Your task to perform on an android device: toggle notifications settings in the gmail app Image 0: 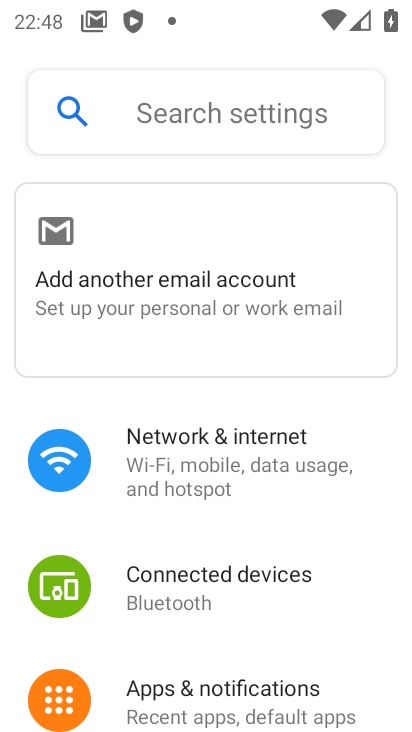
Step 0: press back button
Your task to perform on an android device: toggle notifications settings in the gmail app Image 1: 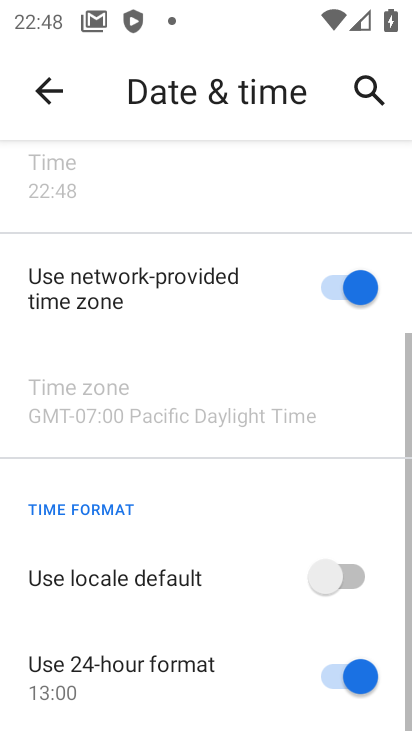
Step 1: press back button
Your task to perform on an android device: toggle notifications settings in the gmail app Image 2: 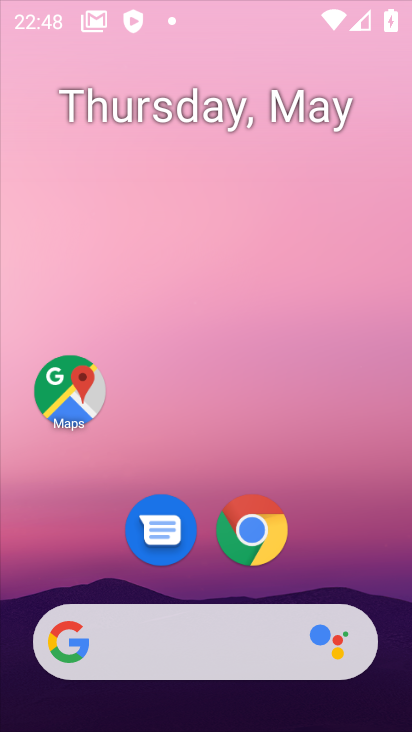
Step 2: press back button
Your task to perform on an android device: toggle notifications settings in the gmail app Image 3: 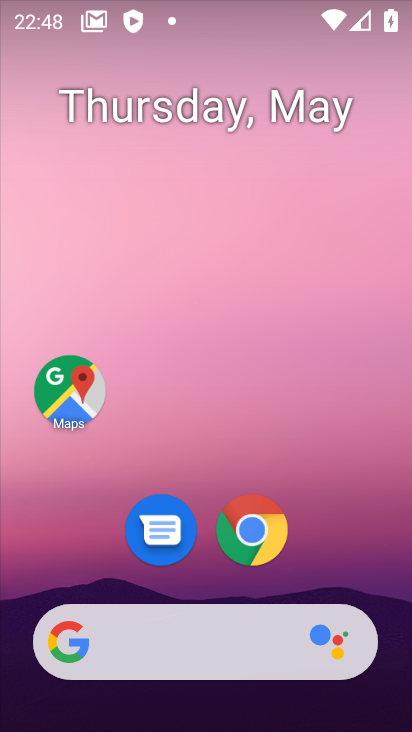
Step 3: drag from (332, 557) to (217, 5)
Your task to perform on an android device: toggle notifications settings in the gmail app Image 4: 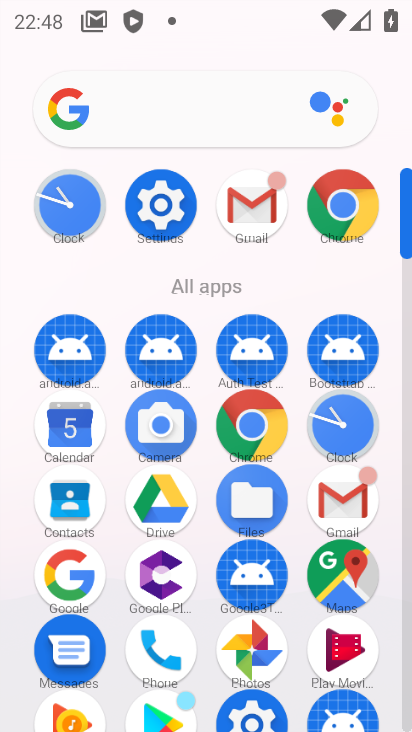
Step 4: click (256, 206)
Your task to perform on an android device: toggle notifications settings in the gmail app Image 5: 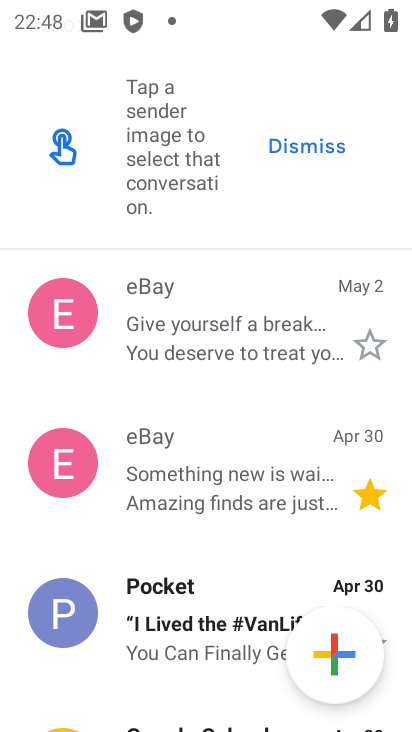
Step 5: drag from (217, 220) to (230, 393)
Your task to perform on an android device: toggle notifications settings in the gmail app Image 6: 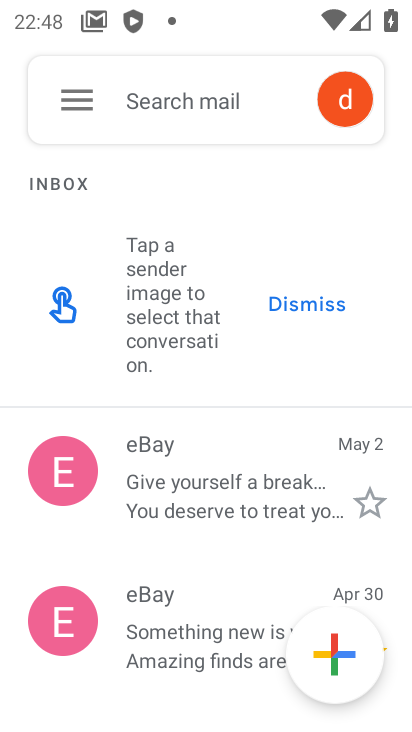
Step 6: click (88, 102)
Your task to perform on an android device: toggle notifications settings in the gmail app Image 7: 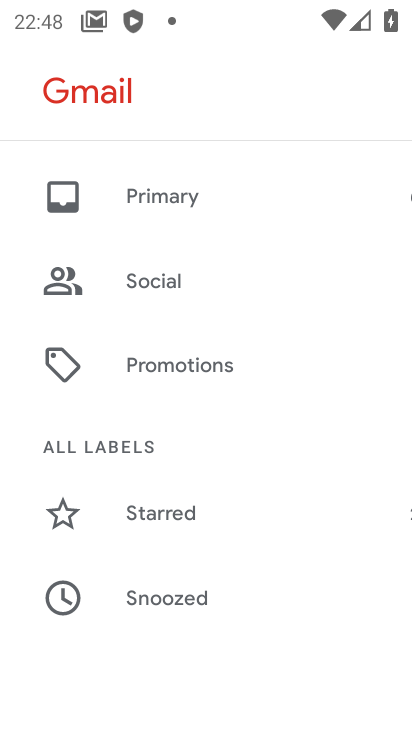
Step 7: drag from (190, 470) to (247, 357)
Your task to perform on an android device: toggle notifications settings in the gmail app Image 8: 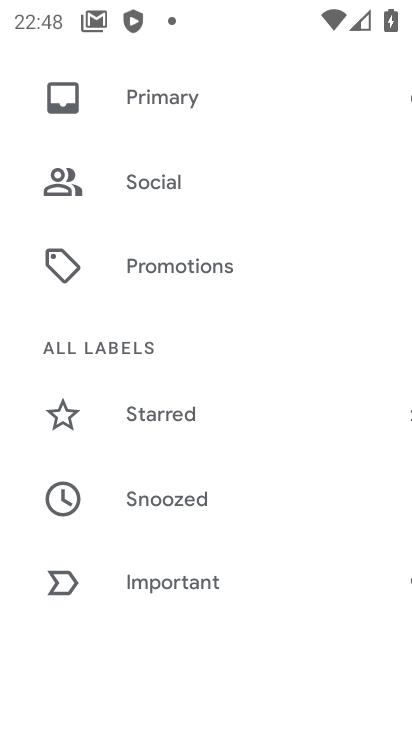
Step 8: drag from (164, 529) to (235, 416)
Your task to perform on an android device: toggle notifications settings in the gmail app Image 9: 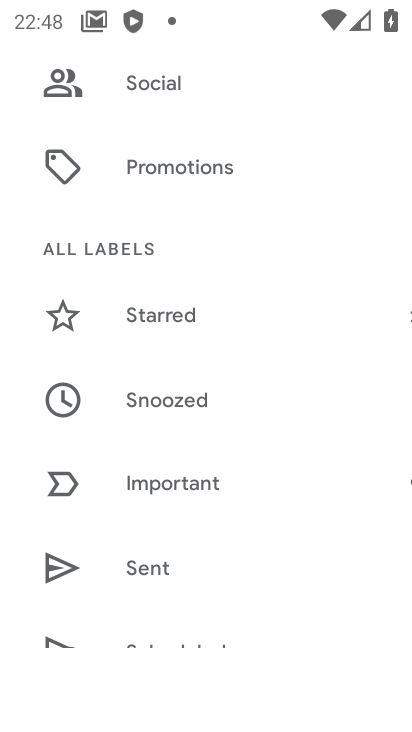
Step 9: drag from (162, 524) to (241, 414)
Your task to perform on an android device: toggle notifications settings in the gmail app Image 10: 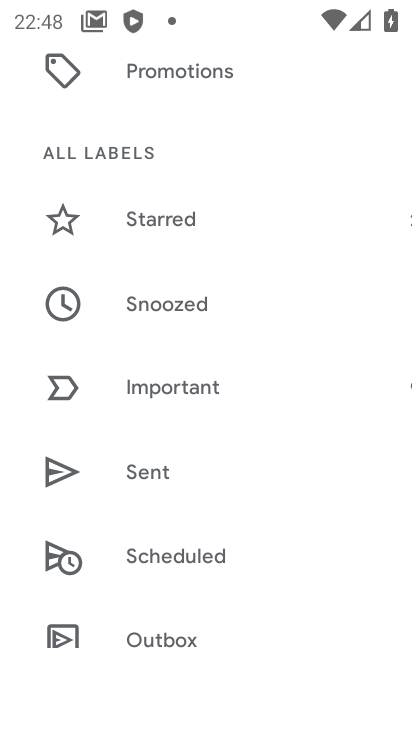
Step 10: drag from (166, 519) to (251, 404)
Your task to perform on an android device: toggle notifications settings in the gmail app Image 11: 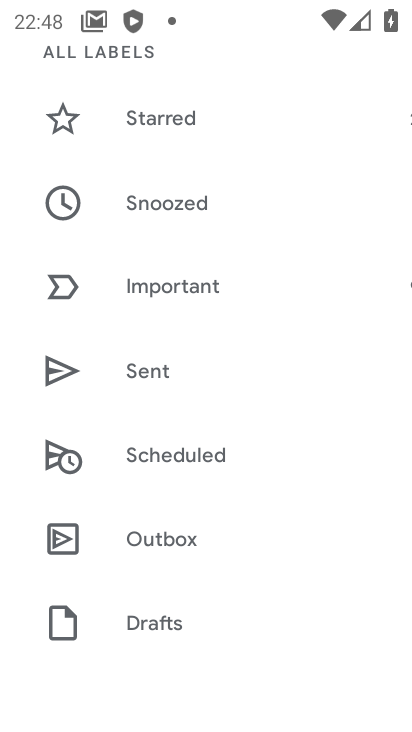
Step 11: drag from (160, 521) to (255, 418)
Your task to perform on an android device: toggle notifications settings in the gmail app Image 12: 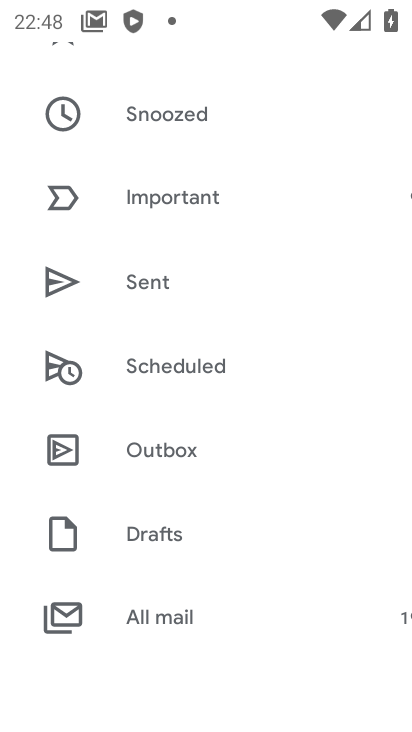
Step 12: drag from (165, 573) to (266, 435)
Your task to perform on an android device: toggle notifications settings in the gmail app Image 13: 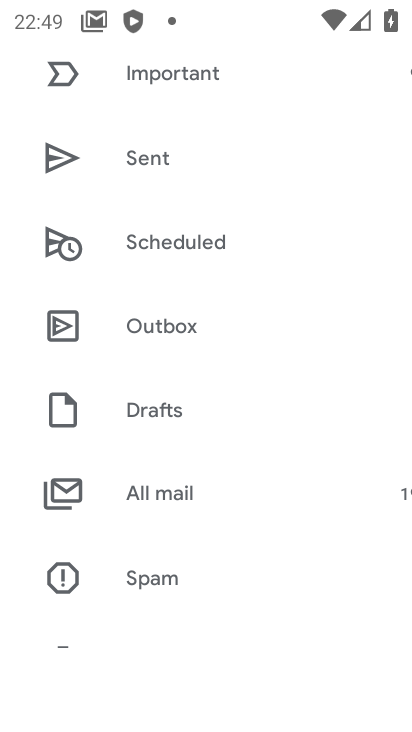
Step 13: drag from (150, 532) to (263, 411)
Your task to perform on an android device: toggle notifications settings in the gmail app Image 14: 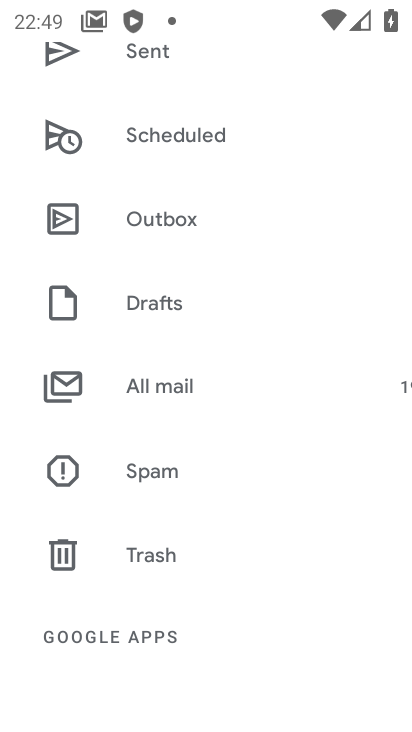
Step 14: drag from (141, 534) to (235, 424)
Your task to perform on an android device: toggle notifications settings in the gmail app Image 15: 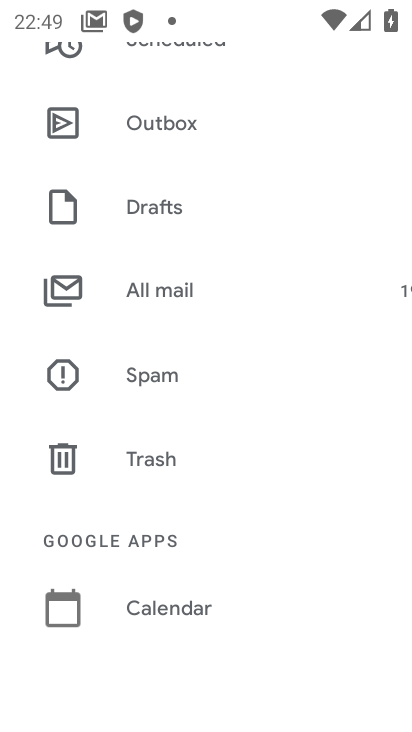
Step 15: drag from (117, 578) to (242, 421)
Your task to perform on an android device: toggle notifications settings in the gmail app Image 16: 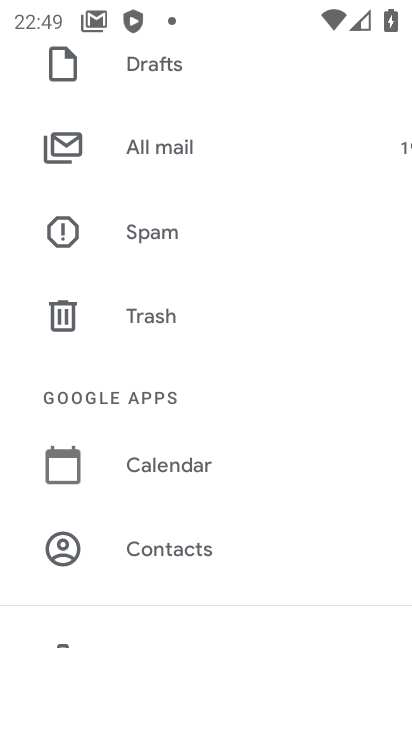
Step 16: drag from (124, 580) to (265, 409)
Your task to perform on an android device: toggle notifications settings in the gmail app Image 17: 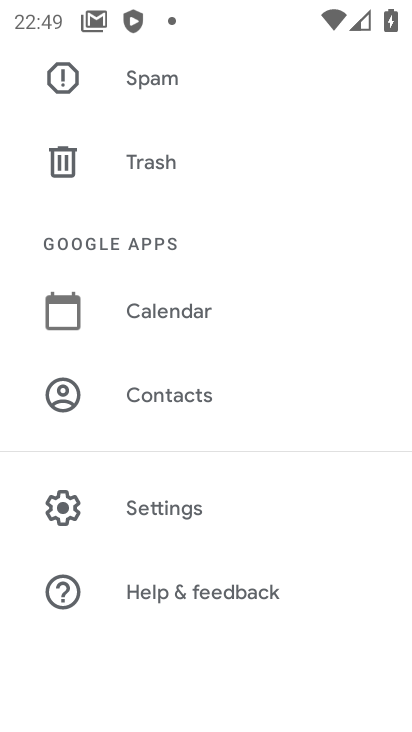
Step 17: click (163, 509)
Your task to perform on an android device: toggle notifications settings in the gmail app Image 18: 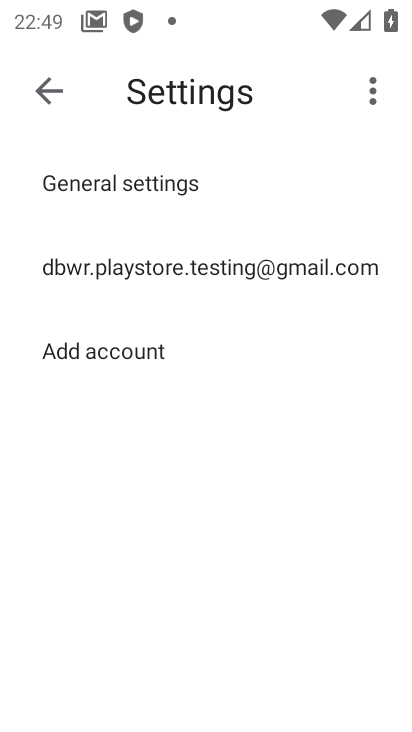
Step 18: click (199, 274)
Your task to perform on an android device: toggle notifications settings in the gmail app Image 19: 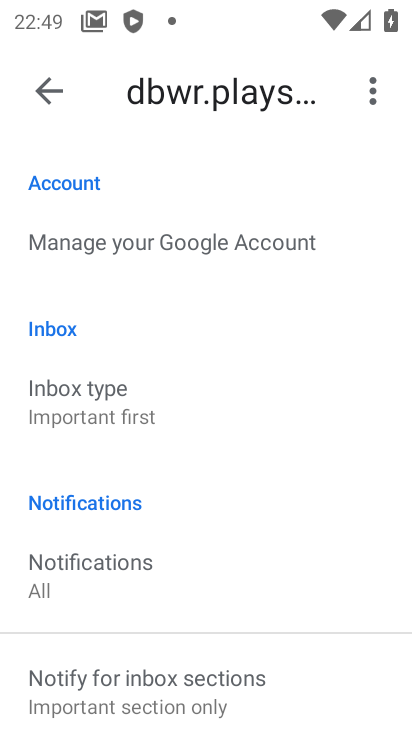
Step 19: drag from (191, 473) to (237, 362)
Your task to perform on an android device: toggle notifications settings in the gmail app Image 20: 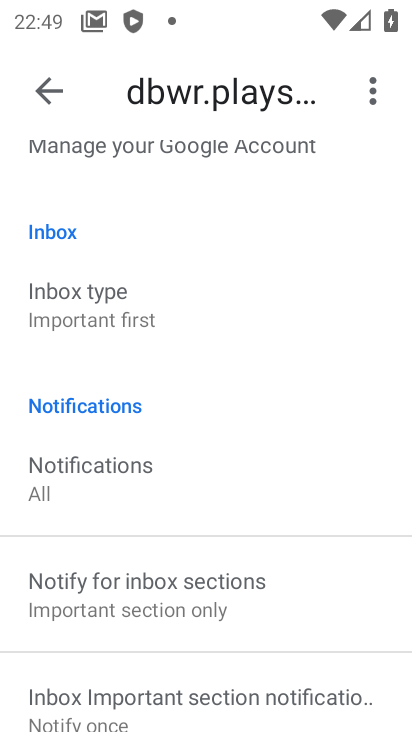
Step 20: drag from (180, 482) to (248, 362)
Your task to perform on an android device: toggle notifications settings in the gmail app Image 21: 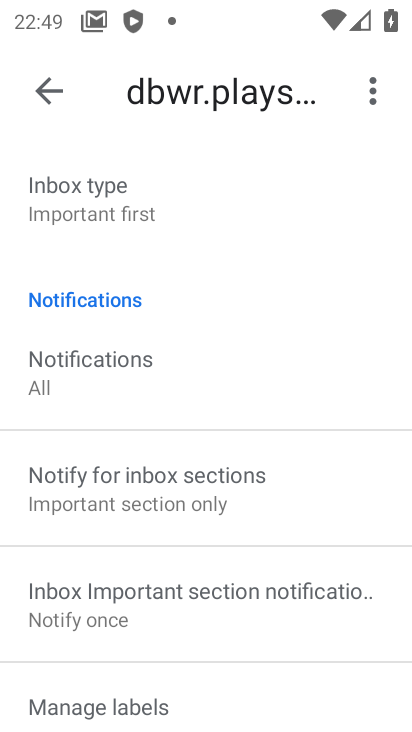
Step 21: drag from (167, 596) to (261, 462)
Your task to perform on an android device: toggle notifications settings in the gmail app Image 22: 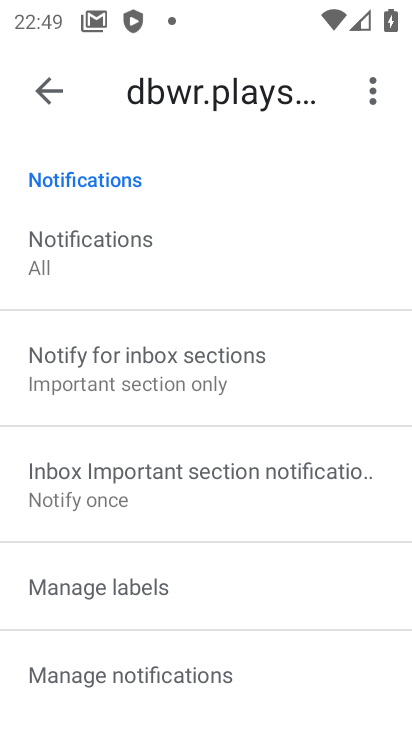
Step 22: drag from (186, 637) to (272, 525)
Your task to perform on an android device: toggle notifications settings in the gmail app Image 23: 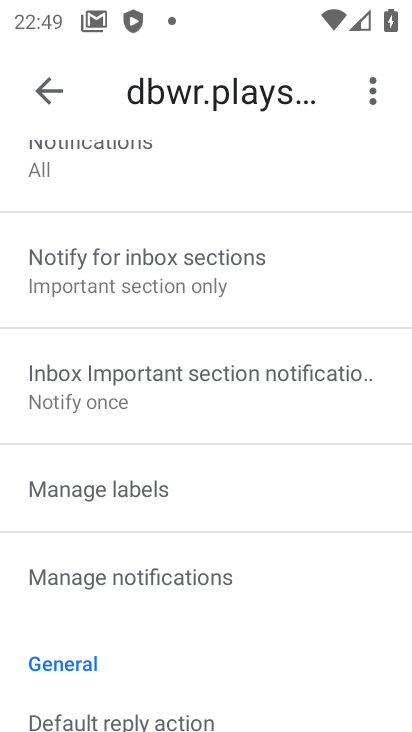
Step 23: click (221, 570)
Your task to perform on an android device: toggle notifications settings in the gmail app Image 24: 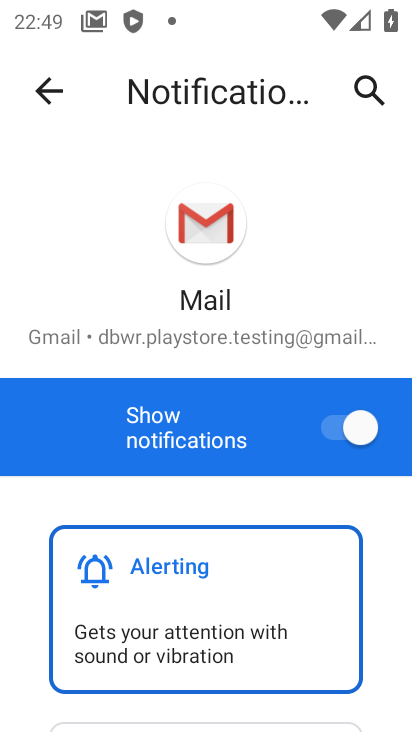
Step 24: click (356, 429)
Your task to perform on an android device: toggle notifications settings in the gmail app Image 25: 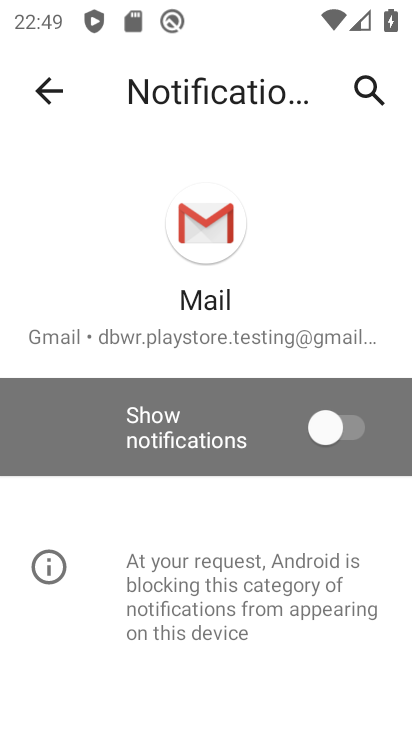
Step 25: task complete